Your task to perform on an android device: change the upload size in google photos Image 0: 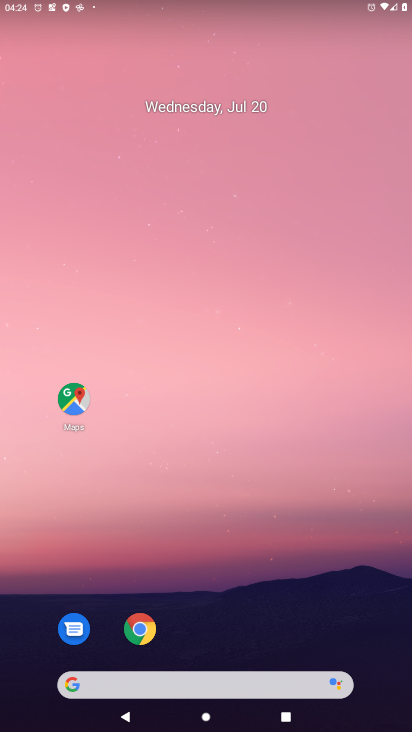
Step 0: drag from (378, 646) to (353, 174)
Your task to perform on an android device: change the upload size in google photos Image 1: 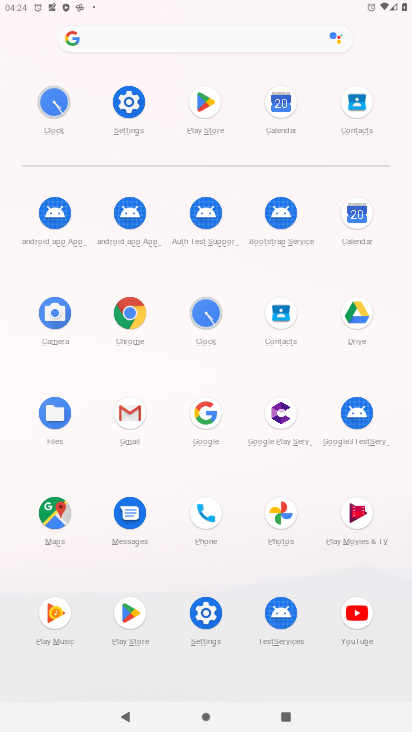
Step 1: click (282, 510)
Your task to perform on an android device: change the upload size in google photos Image 2: 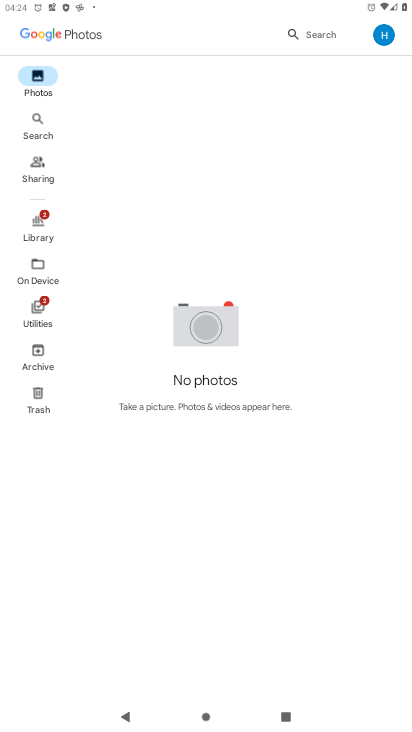
Step 2: click (385, 37)
Your task to perform on an android device: change the upload size in google photos Image 3: 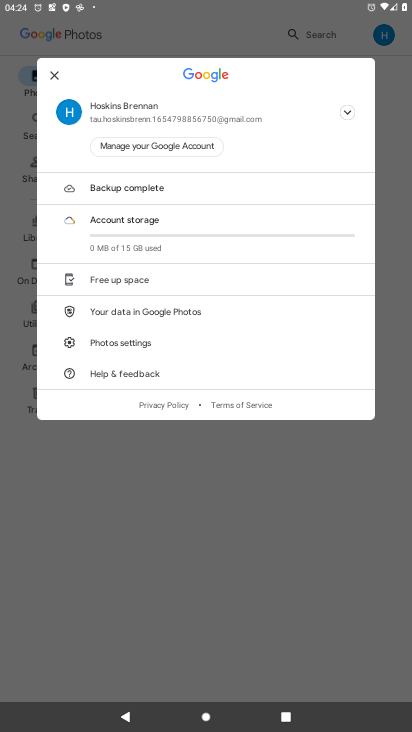
Step 3: click (115, 343)
Your task to perform on an android device: change the upload size in google photos Image 4: 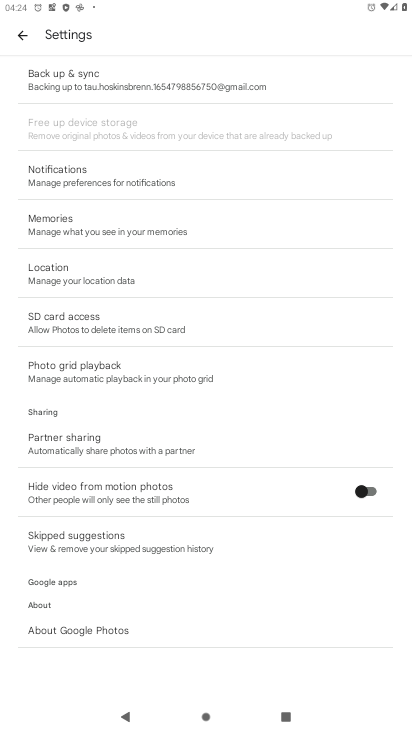
Step 4: click (66, 73)
Your task to perform on an android device: change the upload size in google photos Image 5: 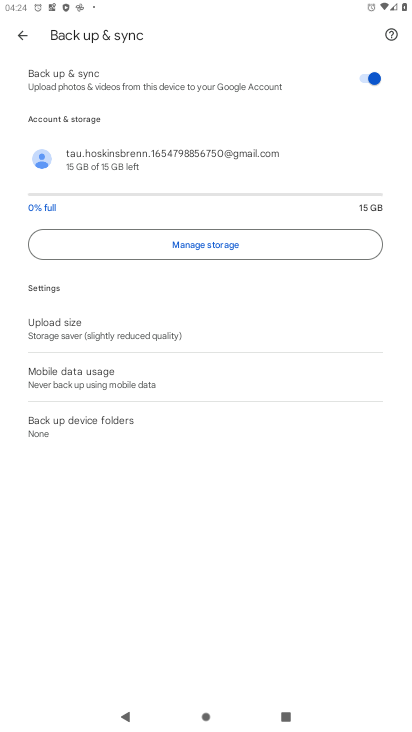
Step 5: click (72, 330)
Your task to perform on an android device: change the upload size in google photos Image 6: 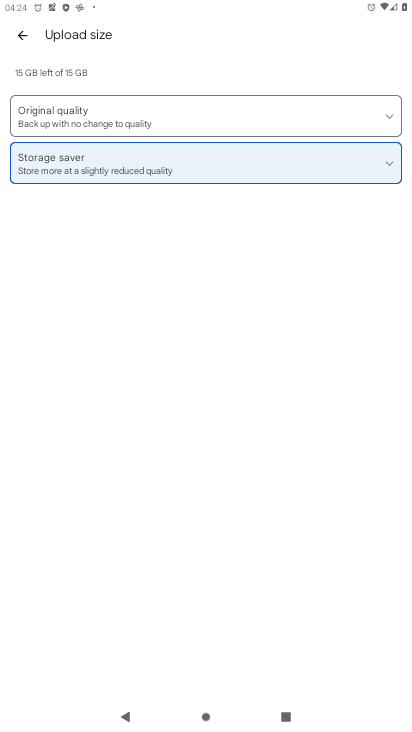
Step 6: click (167, 110)
Your task to perform on an android device: change the upload size in google photos Image 7: 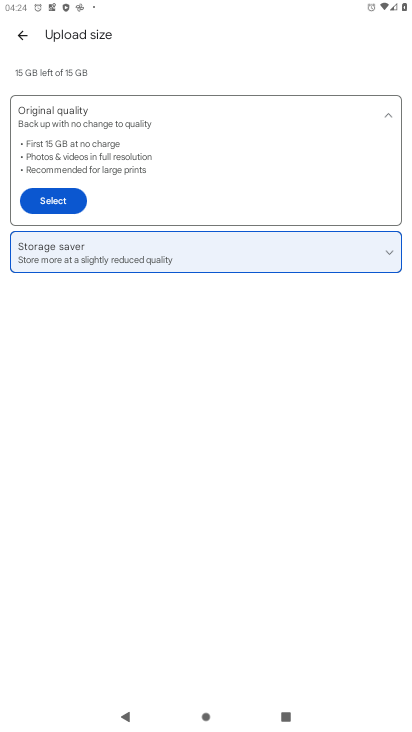
Step 7: click (56, 207)
Your task to perform on an android device: change the upload size in google photos Image 8: 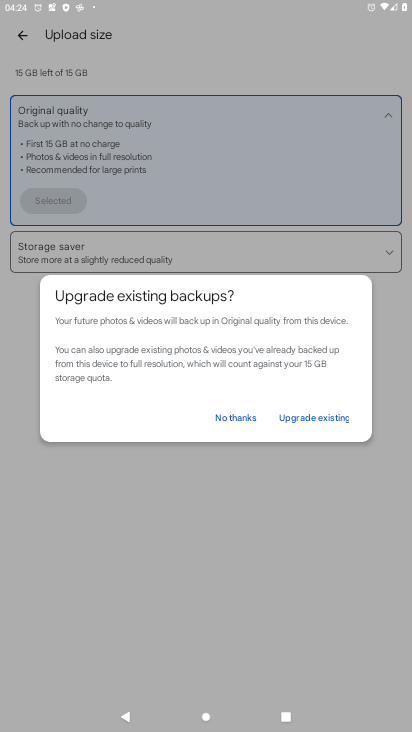
Step 8: click (311, 417)
Your task to perform on an android device: change the upload size in google photos Image 9: 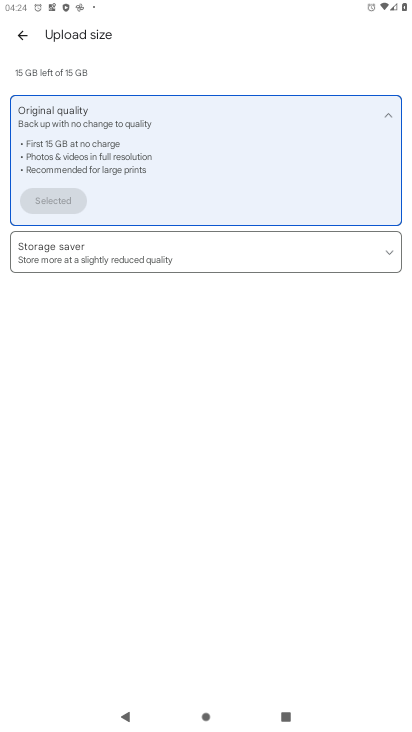
Step 9: task complete